Your task to perform on an android device: turn notification dots off Image 0: 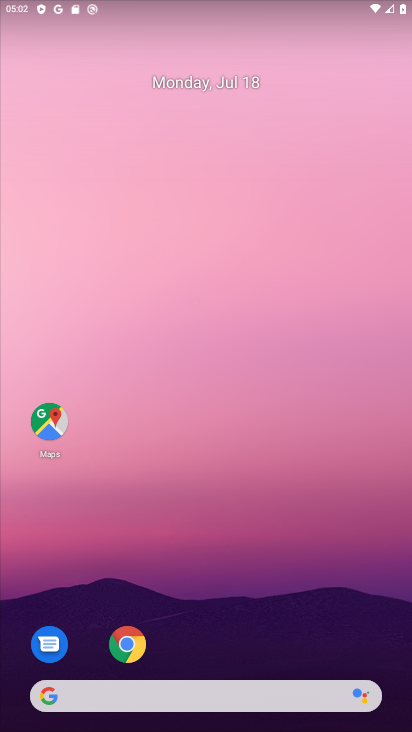
Step 0: press home button
Your task to perform on an android device: turn notification dots off Image 1: 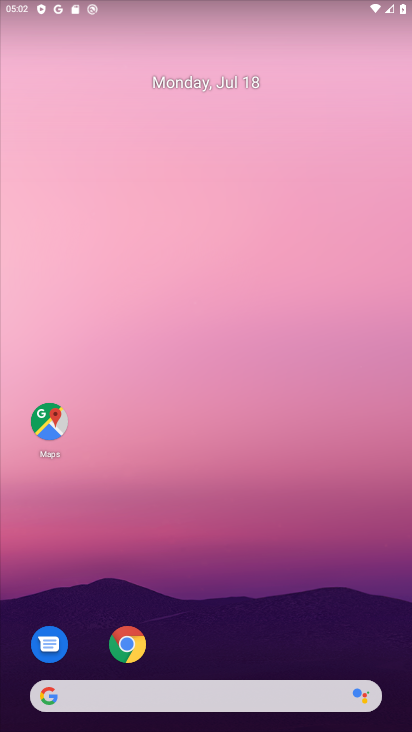
Step 1: drag from (246, 590) to (270, 132)
Your task to perform on an android device: turn notification dots off Image 2: 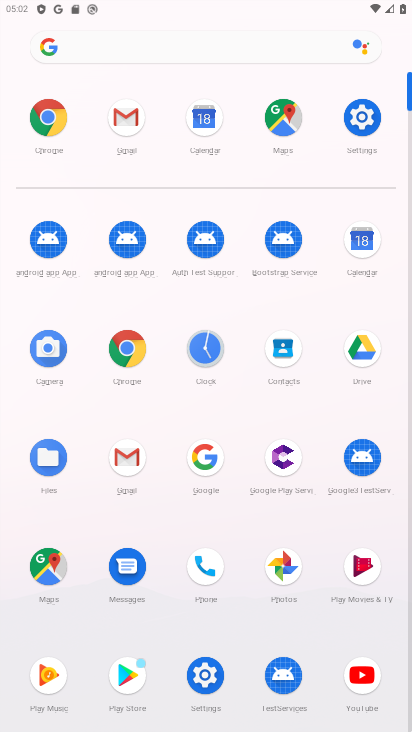
Step 2: click (364, 125)
Your task to perform on an android device: turn notification dots off Image 3: 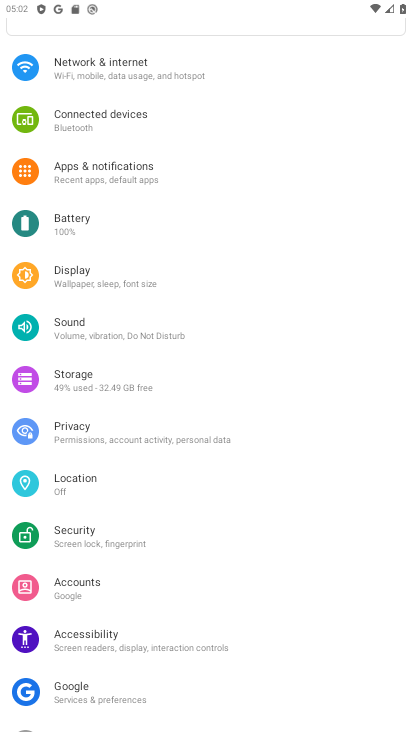
Step 3: click (117, 178)
Your task to perform on an android device: turn notification dots off Image 4: 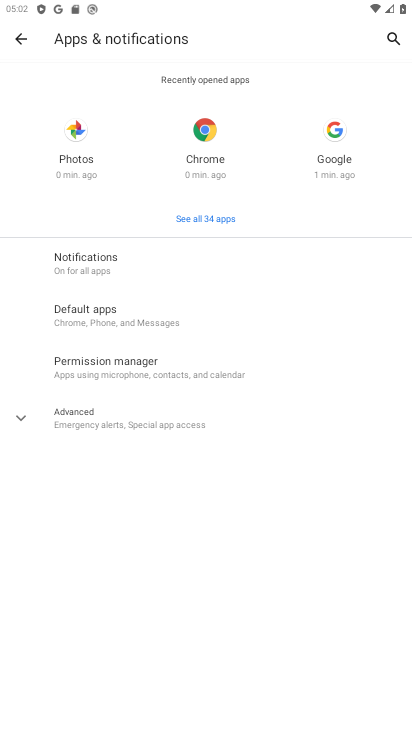
Step 4: click (104, 264)
Your task to perform on an android device: turn notification dots off Image 5: 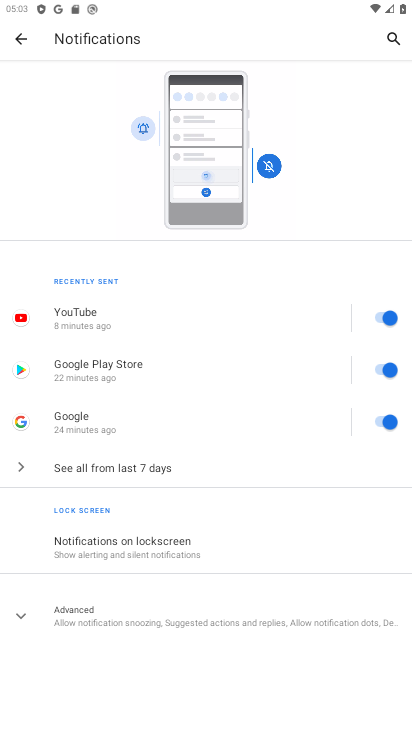
Step 5: click (24, 615)
Your task to perform on an android device: turn notification dots off Image 6: 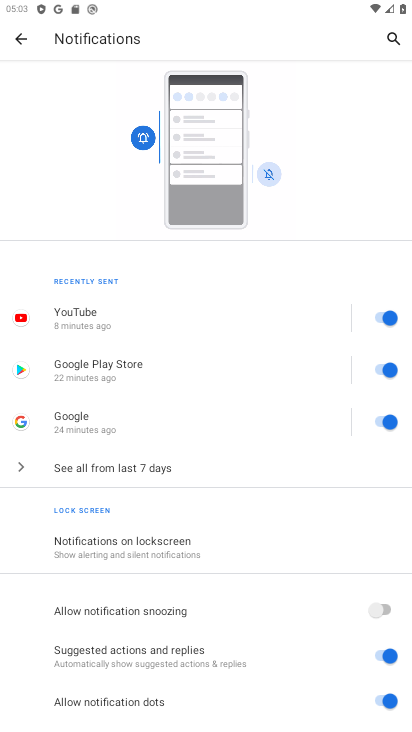
Step 6: drag from (249, 533) to (272, 141)
Your task to perform on an android device: turn notification dots off Image 7: 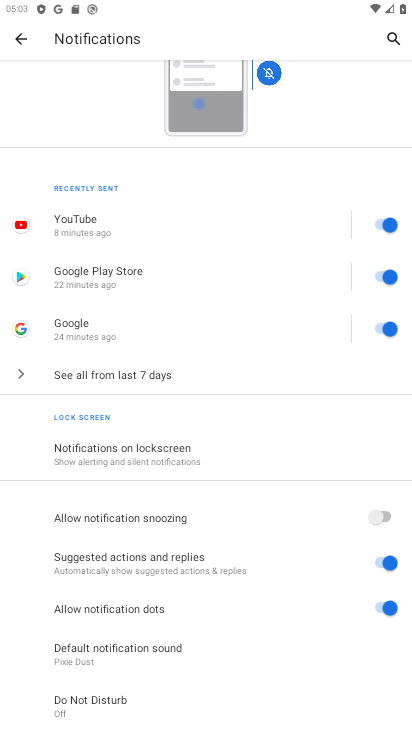
Step 7: click (388, 608)
Your task to perform on an android device: turn notification dots off Image 8: 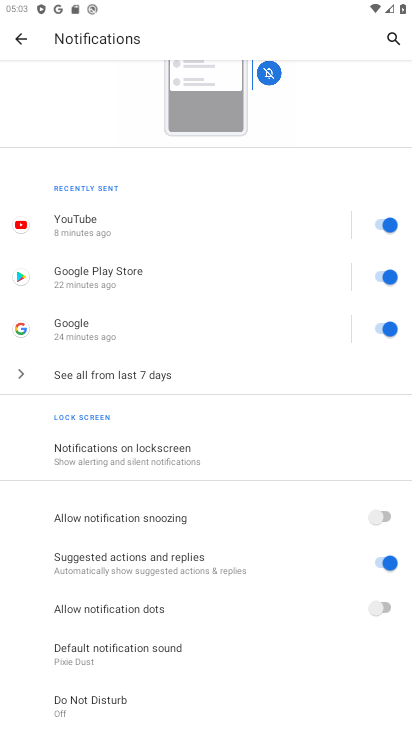
Step 8: task complete